Your task to perform on an android device: turn on wifi Image 0: 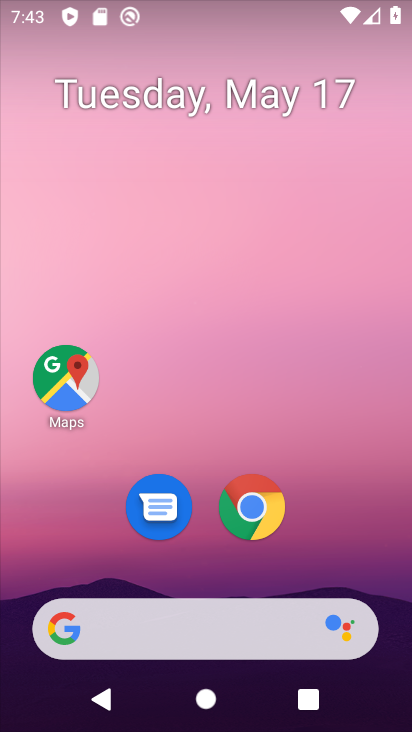
Step 0: drag from (251, 699) to (215, 74)
Your task to perform on an android device: turn on wifi Image 1: 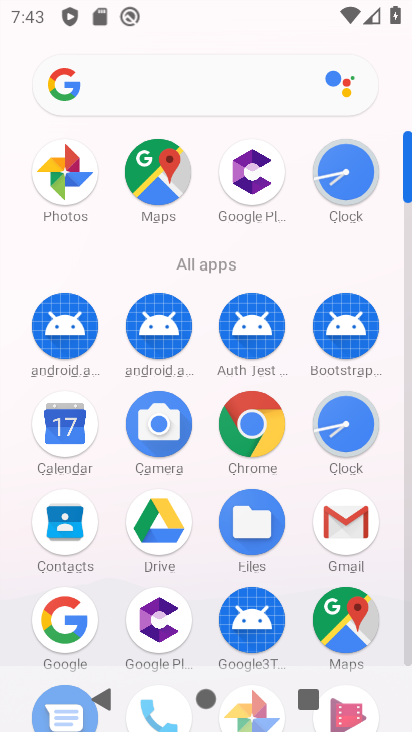
Step 1: drag from (297, 277) to (310, 155)
Your task to perform on an android device: turn on wifi Image 2: 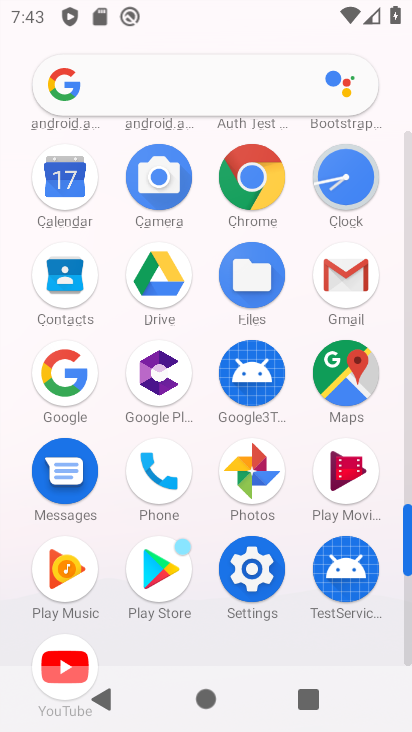
Step 2: drag from (292, 302) to (276, 167)
Your task to perform on an android device: turn on wifi Image 3: 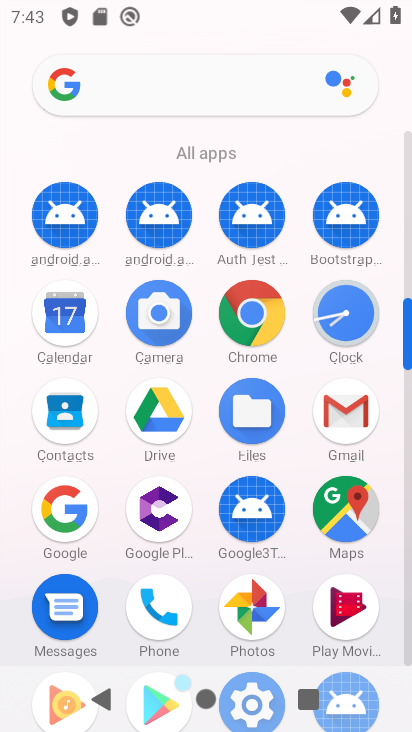
Step 3: drag from (226, 466) to (226, 210)
Your task to perform on an android device: turn on wifi Image 4: 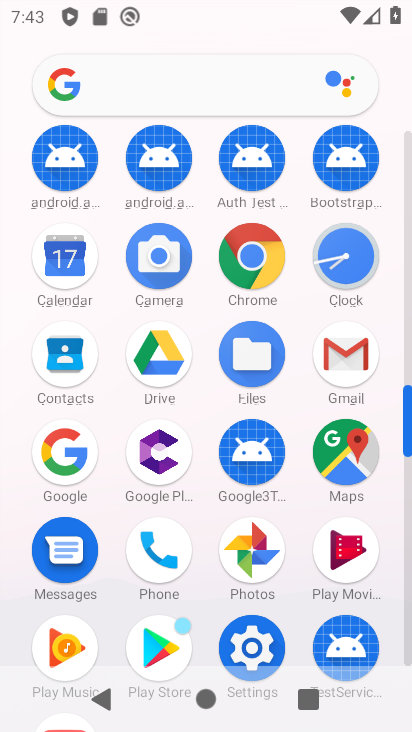
Step 4: click (246, 635)
Your task to perform on an android device: turn on wifi Image 5: 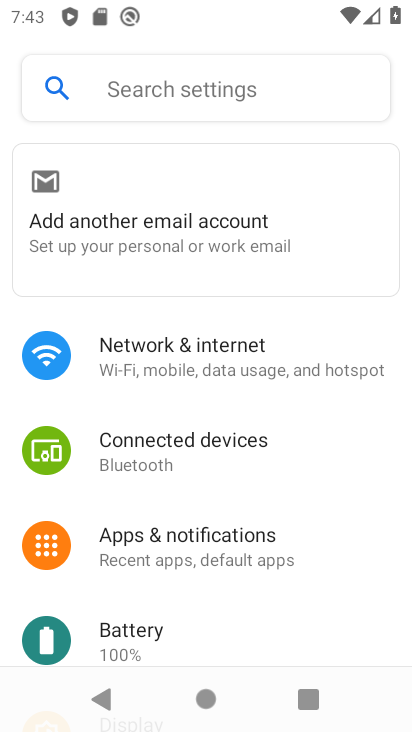
Step 5: click (160, 359)
Your task to perform on an android device: turn on wifi Image 6: 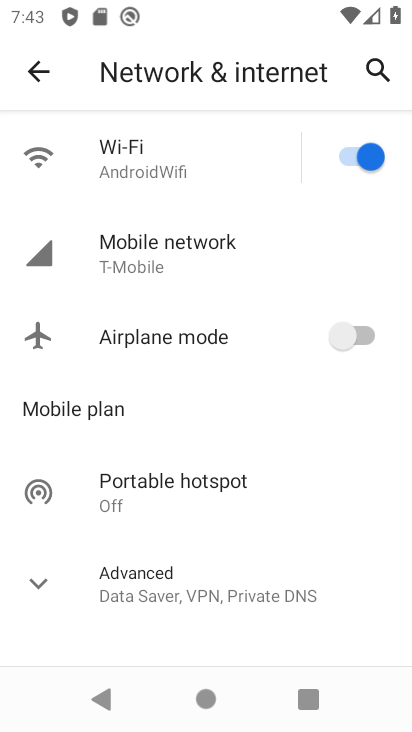
Step 6: task complete